Your task to perform on an android device: Go to calendar. Show me events next week Image 0: 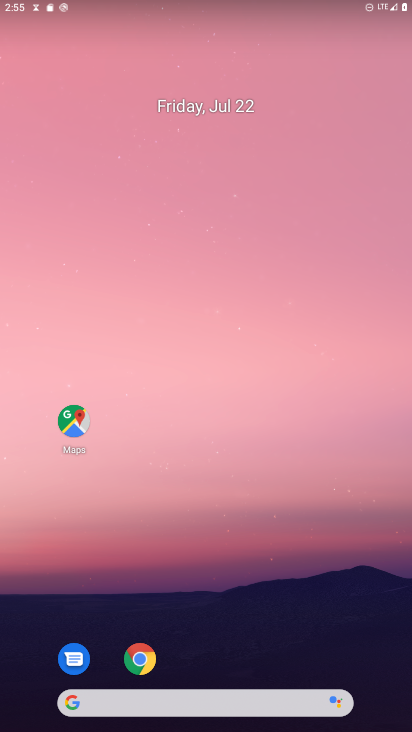
Step 0: drag from (291, 589) to (299, 150)
Your task to perform on an android device: Go to calendar. Show me events next week Image 1: 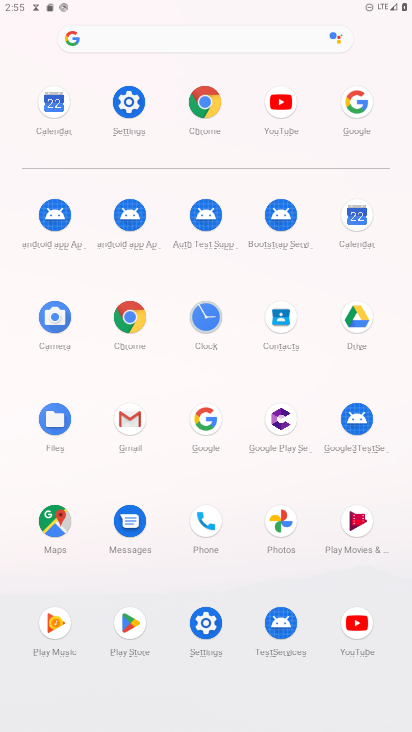
Step 1: click (352, 225)
Your task to perform on an android device: Go to calendar. Show me events next week Image 2: 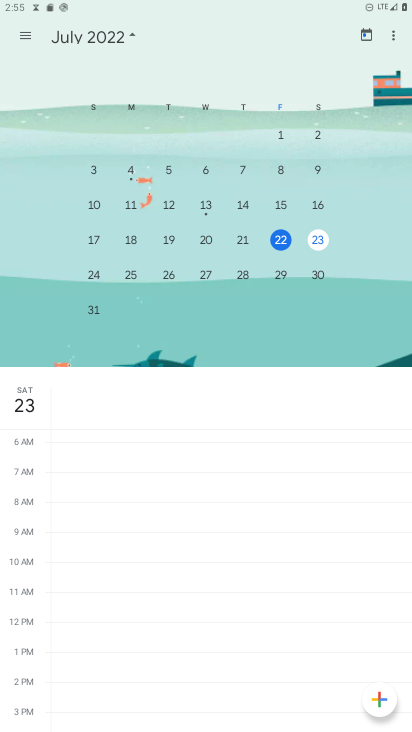
Step 2: click (320, 276)
Your task to perform on an android device: Go to calendar. Show me events next week Image 3: 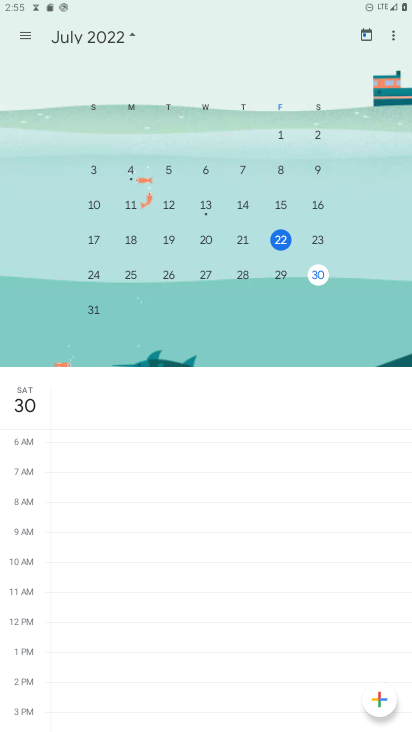
Step 3: task complete